Your task to perform on an android device: set the timer Image 0: 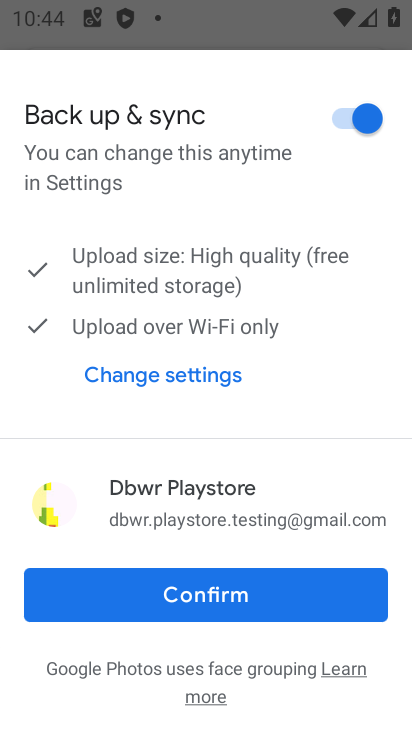
Step 0: press home button
Your task to perform on an android device: set the timer Image 1: 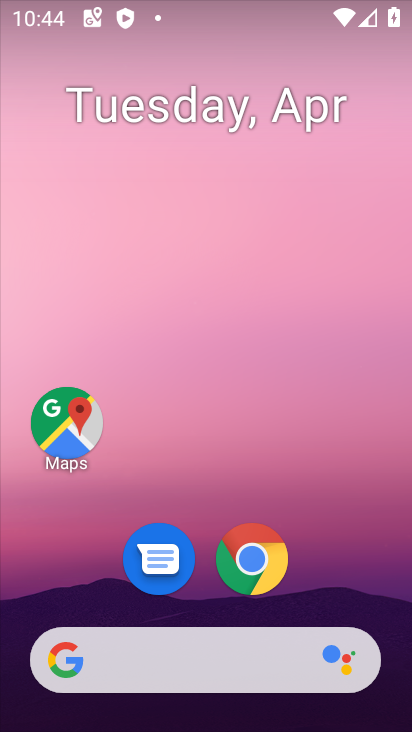
Step 1: drag from (308, 484) to (311, 77)
Your task to perform on an android device: set the timer Image 2: 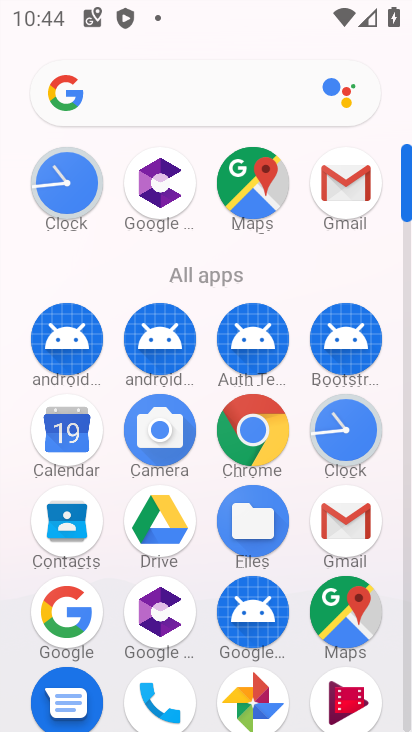
Step 2: click (336, 444)
Your task to perform on an android device: set the timer Image 3: 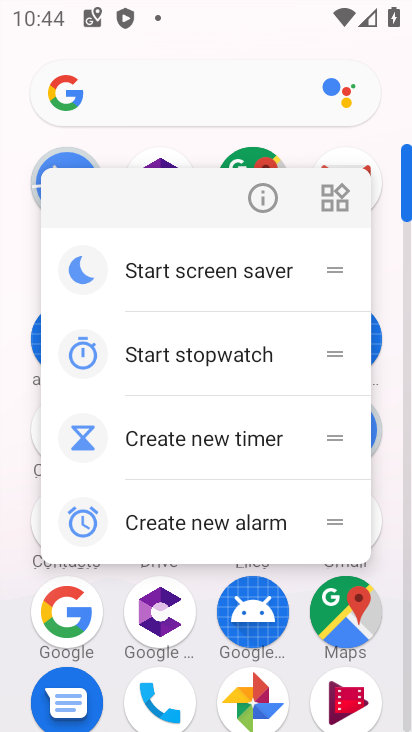
Step 3: click (161, 432)
Your task to perform on an android device: set the timer Image 4: 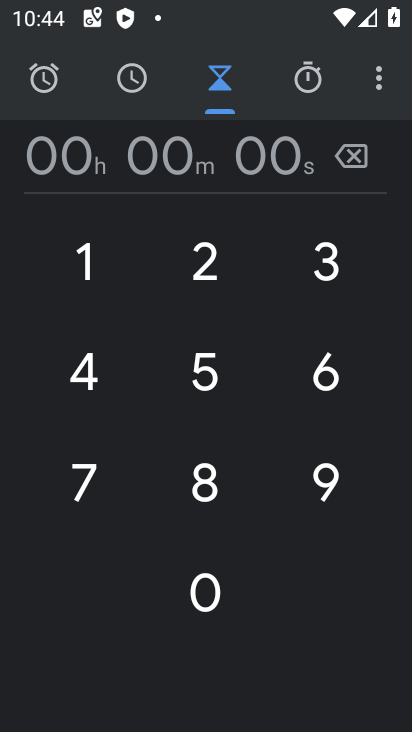
Step 4: click (206, 266)
Your task to perform on an android device: set the timer Image 5: 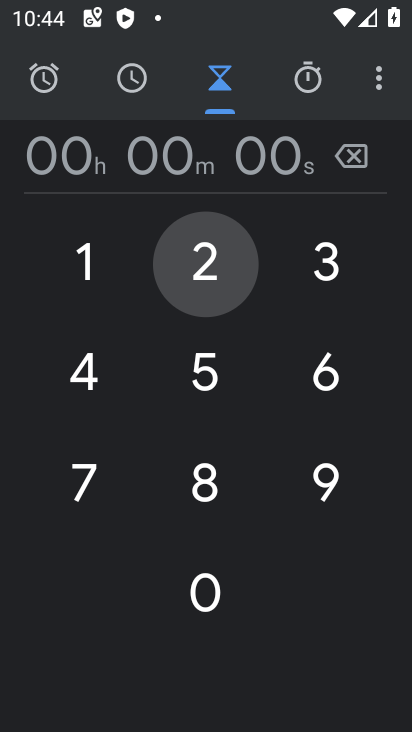
Step 5: click (213, 392)
Your task to perform on an android device: set the timer Image 6: 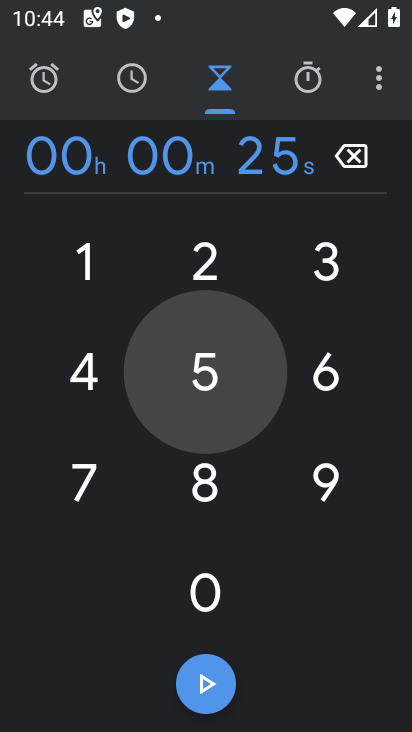
Step 6: click (209, 481)
Your task to perform on an android device: set the timer Image 7: 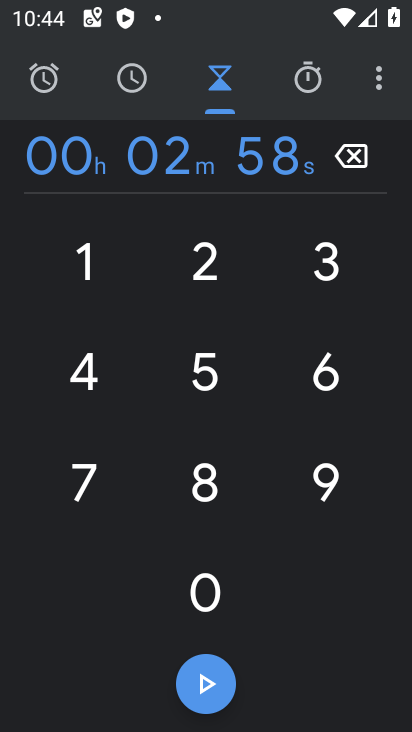
Step 7: click (326, 359)
Your task to perform on an android device: set the timer Image 8: 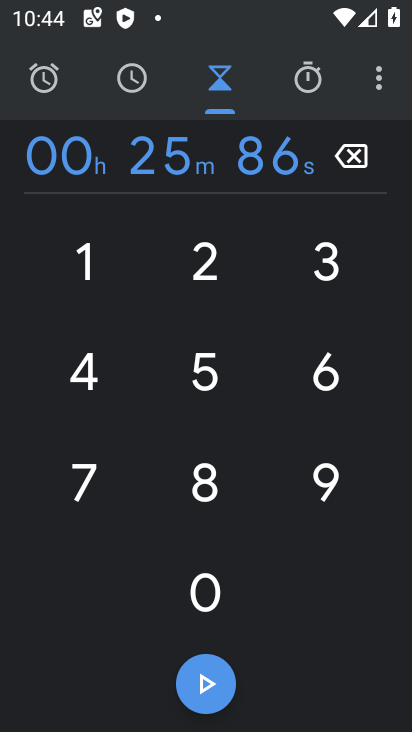
Step 8: click (324, 488)
Your task to perform on an android device: set the timer Image 9: 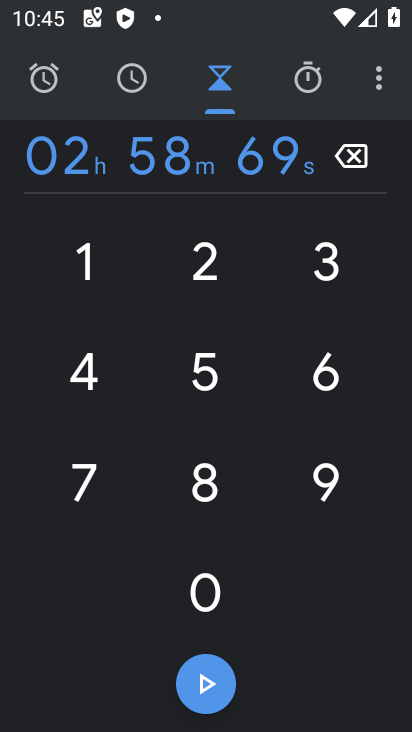
Step 9: click (201, 682)
Your task to perform on an android device: set the timer Image 10: 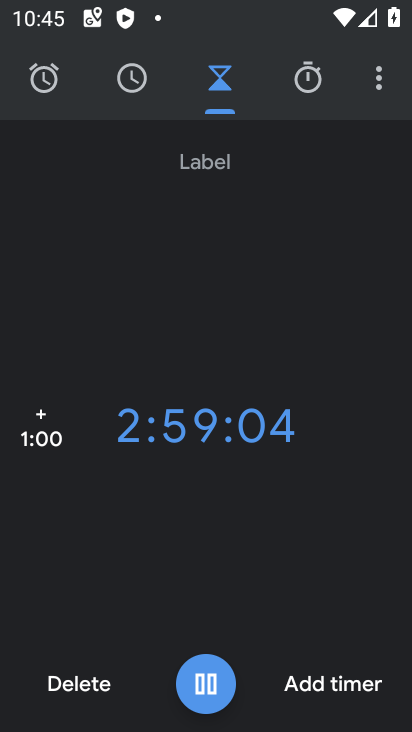
Step 10: task complete